Your task to perform on an android device: Look up the best rated power drills on Lowes.com Image 0: 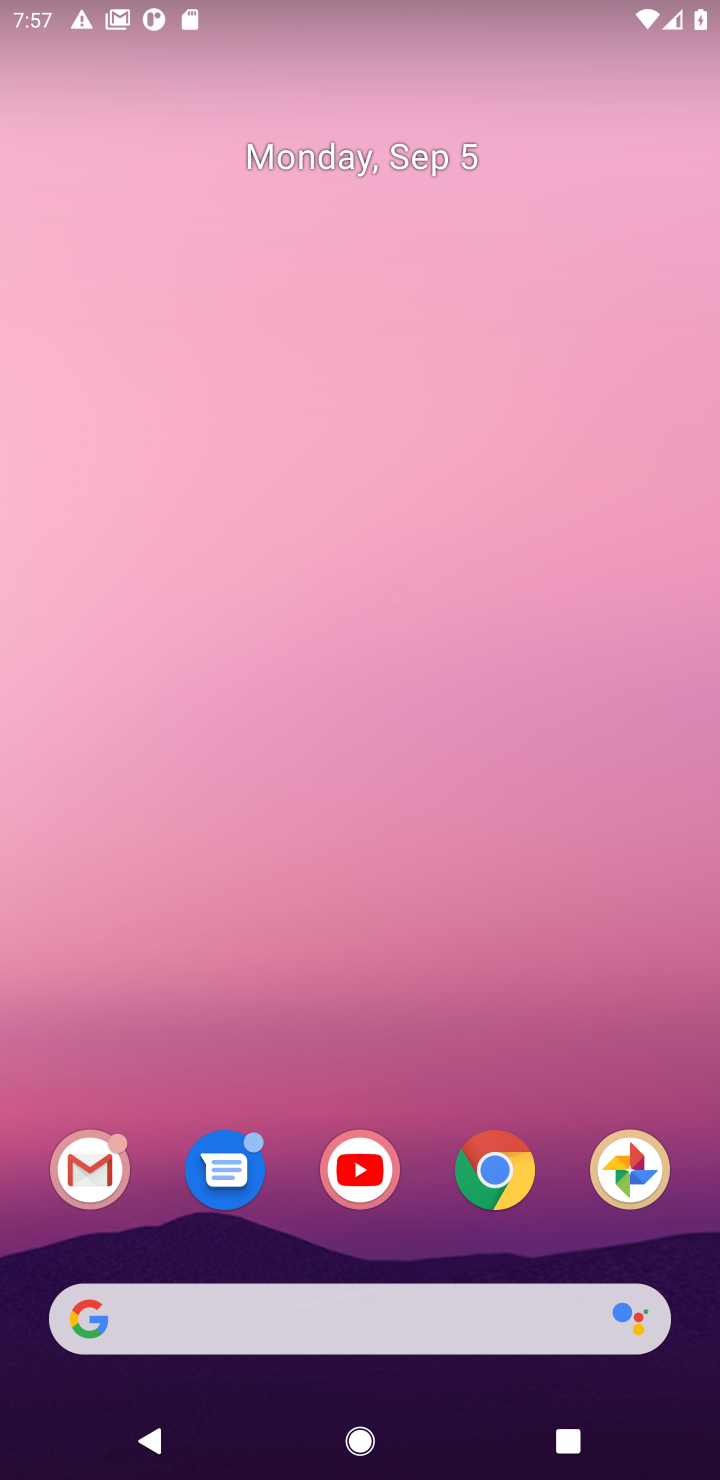
Step 0: click (491, 1143)
Your task to perform on an android device: Look up the best rated power drills on Lowes.com Image 1: 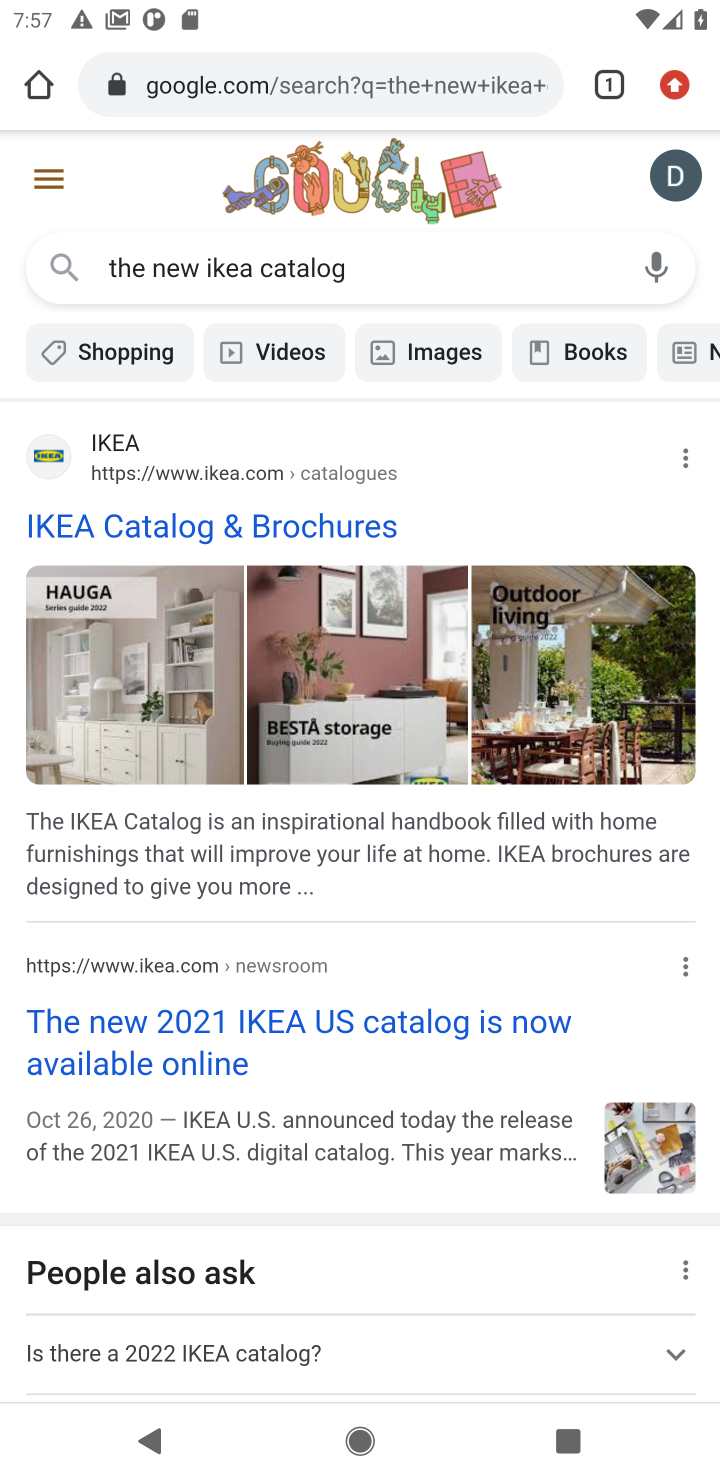
Step 1: click (365, 82)
Your task to perform on an android device: Look up the best rated power drills on Lowes.com Image 2: 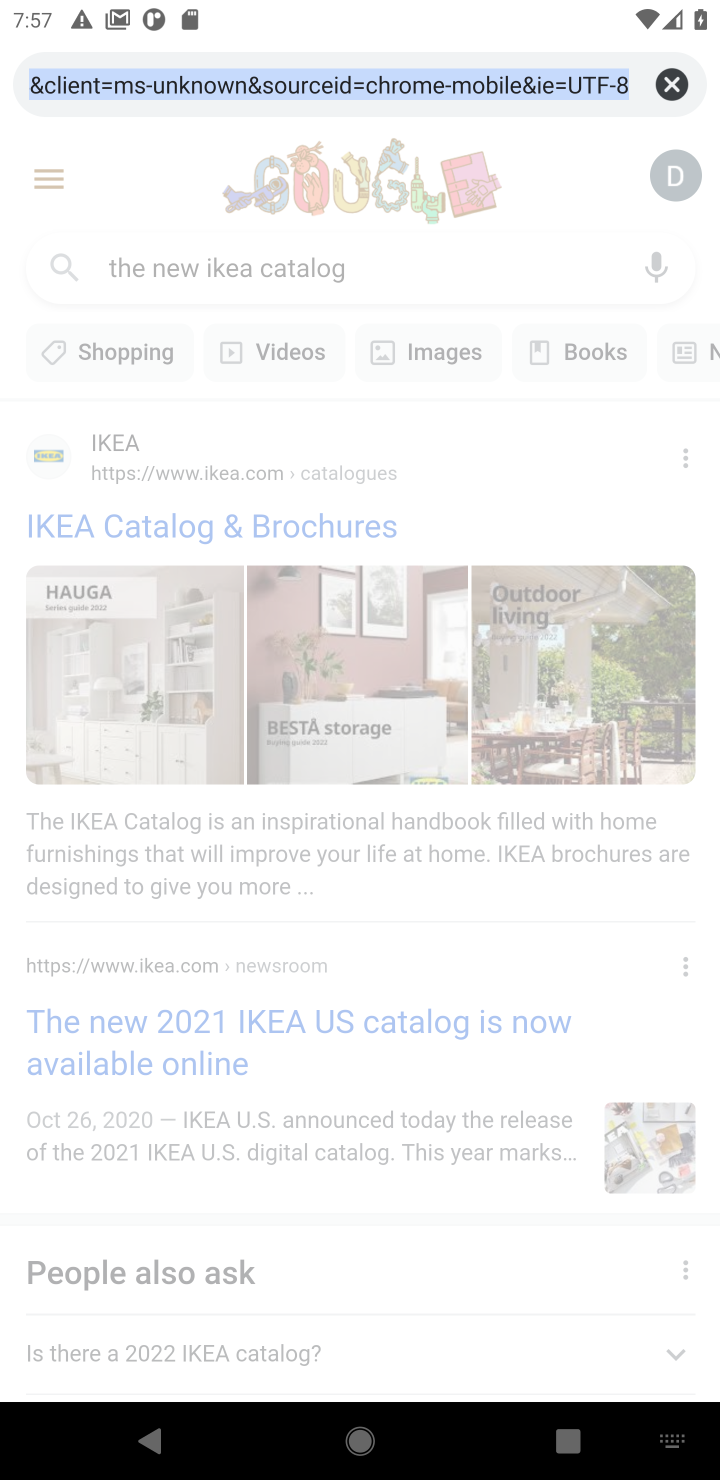
Step 2: type "Lowes.com"
Your task to perform on an android device: Look up the best rated power drills on Lowes.com Image 3: 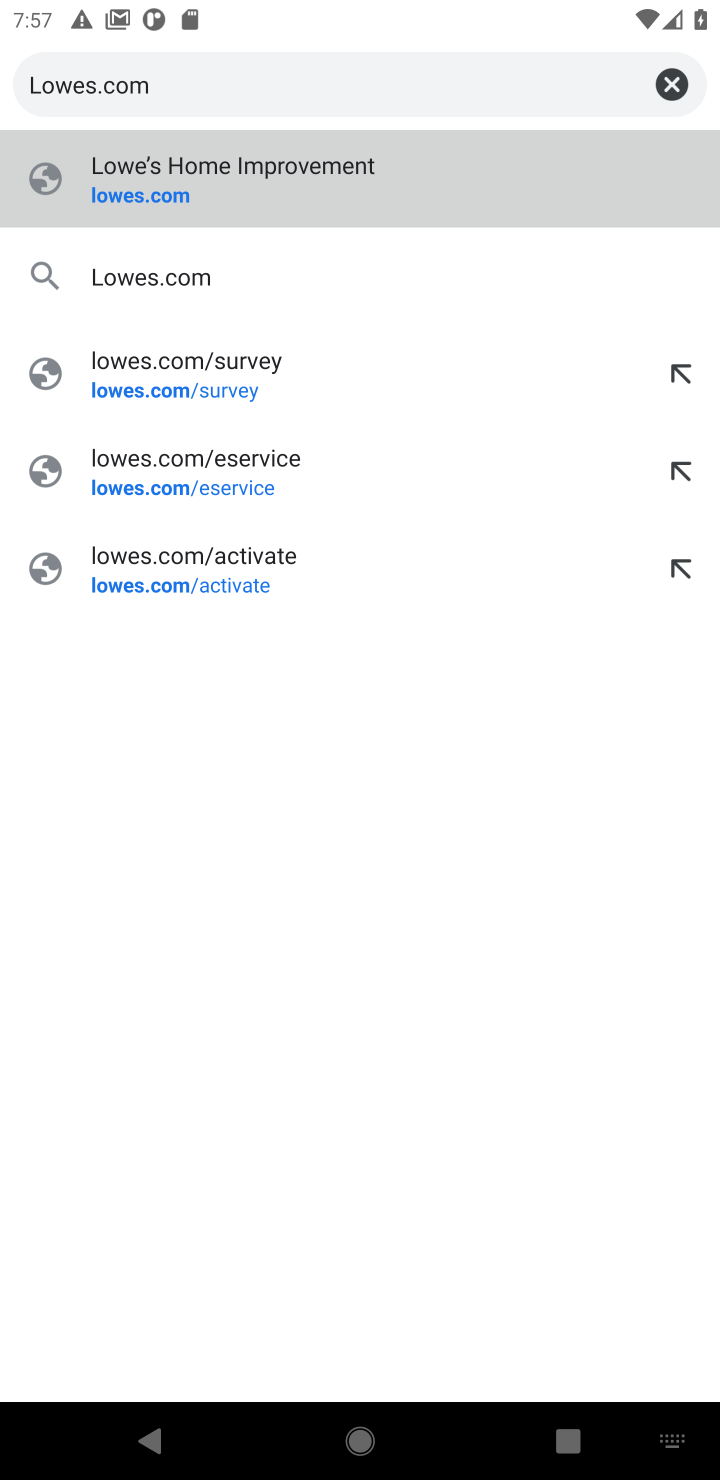
Step 3: click (170, 285)
Your task to perform on an android device: Look up the best rated power drills on Lowes.com Image 4: 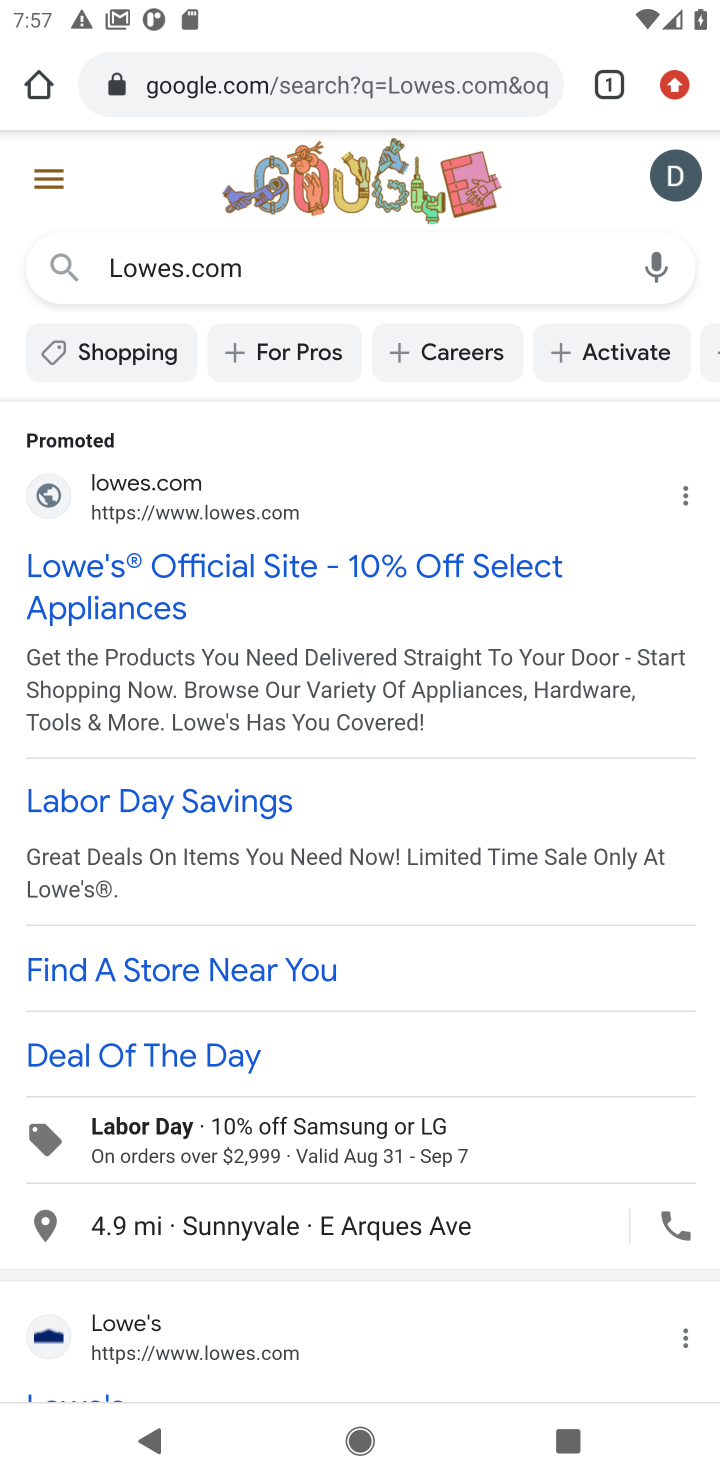
Step 4: click (88, 605)
Your task to perform on an android device: Look up the best rated power drills on Lowes.com Image 5: 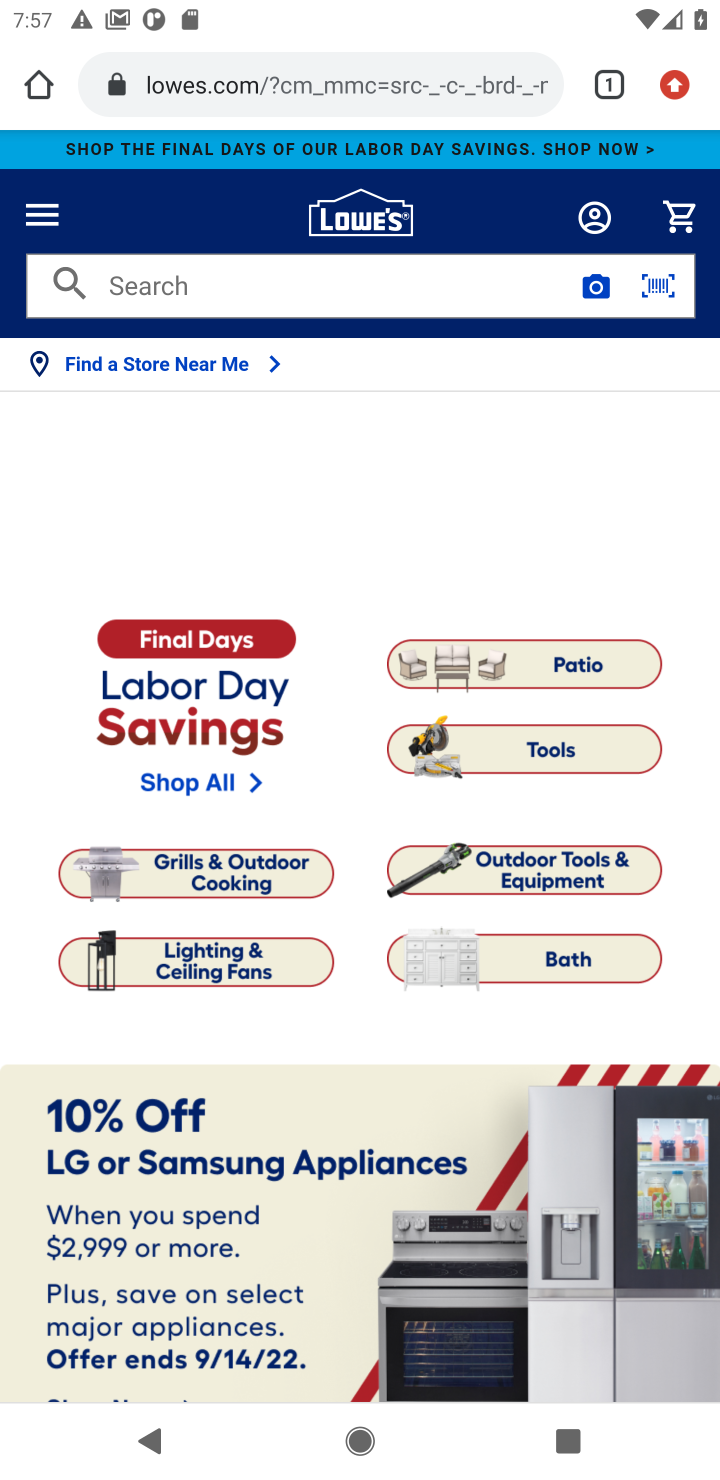
Step 5: click (425, 295)
Your task to perform on an android device: Look up the best rated power drills on Lowes.com Image 6: 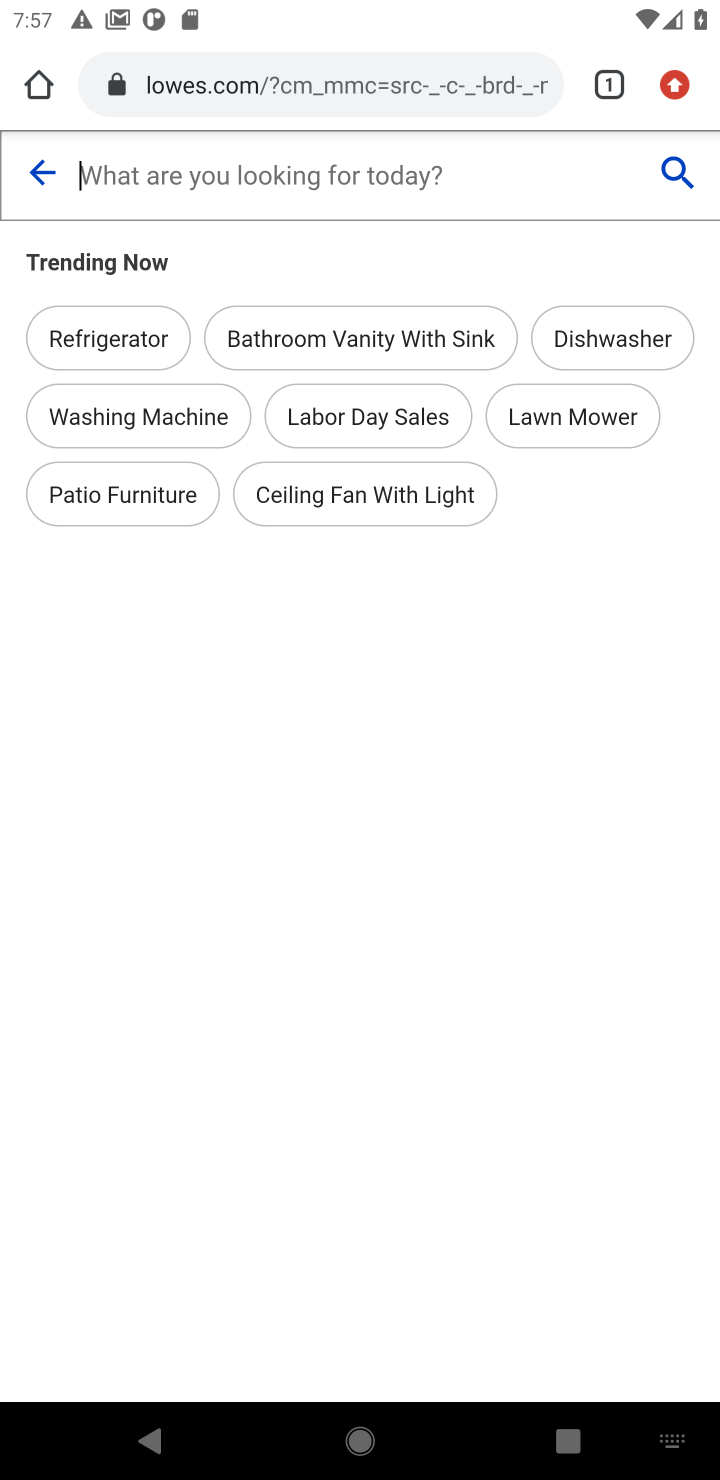
Step 6: type "the best rated power drills"
Your task to perform on an android device: Look up the best rated power drills on Lowes.com Image 7: 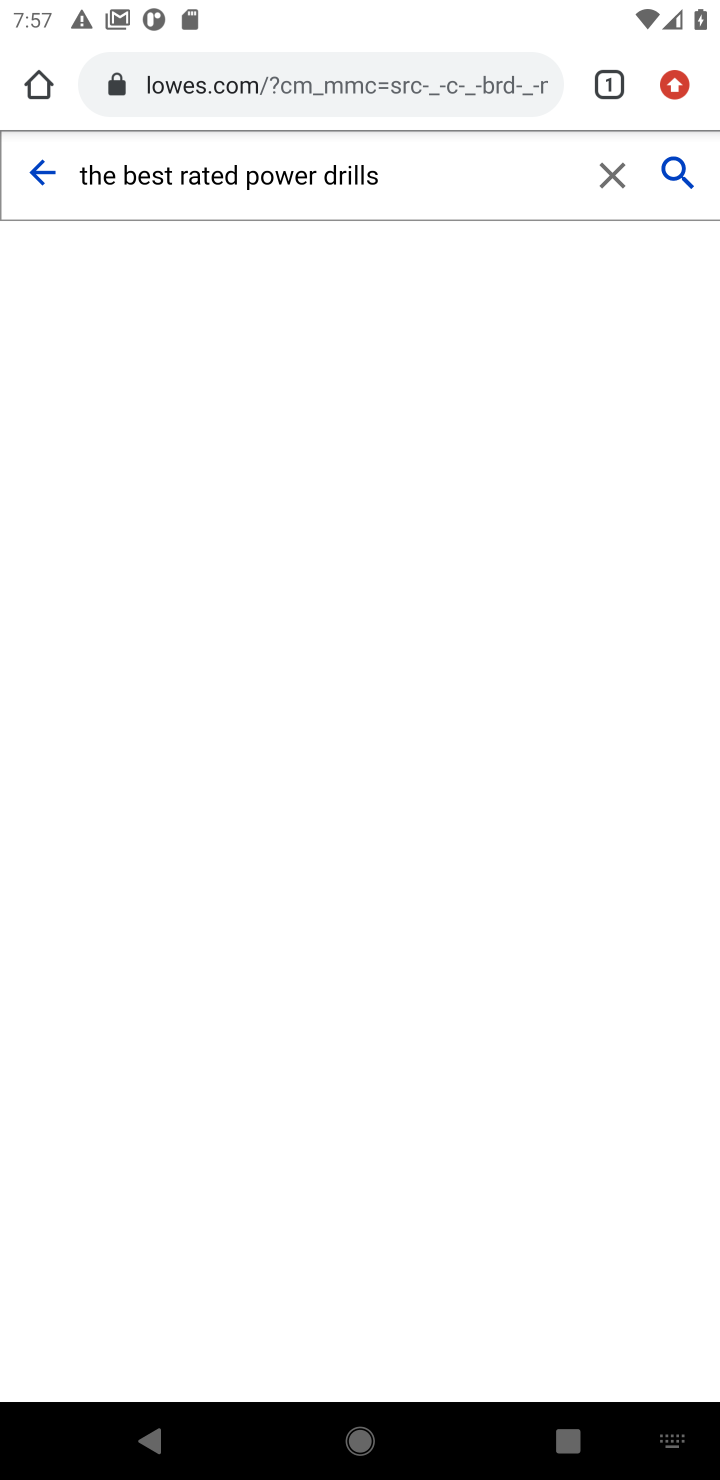
Step 7: click (670, 178)
Your task to perform on an android device: Look up the best rated power drills on Lowes.com Image 8: 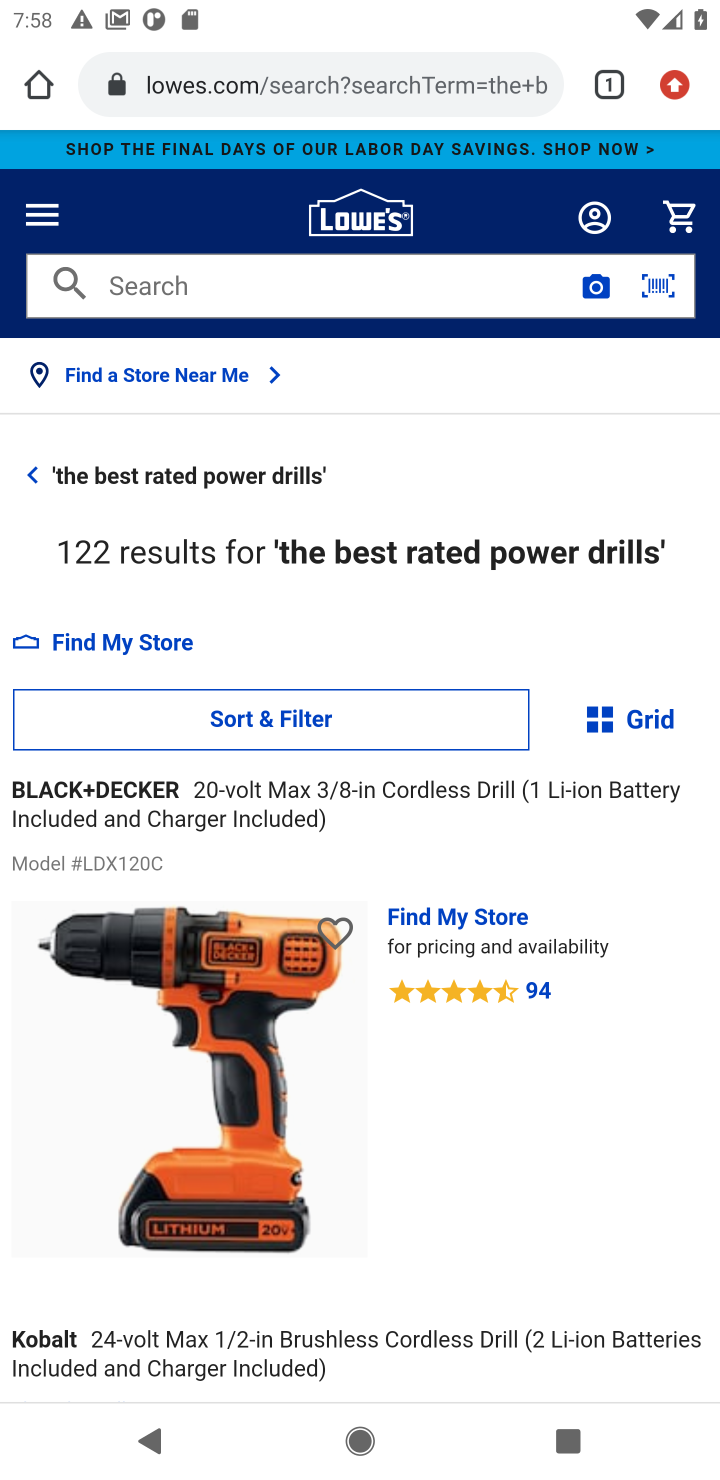
Step 8: task complete